Your task to perform on an android device: Go to CNN.com Image 0: 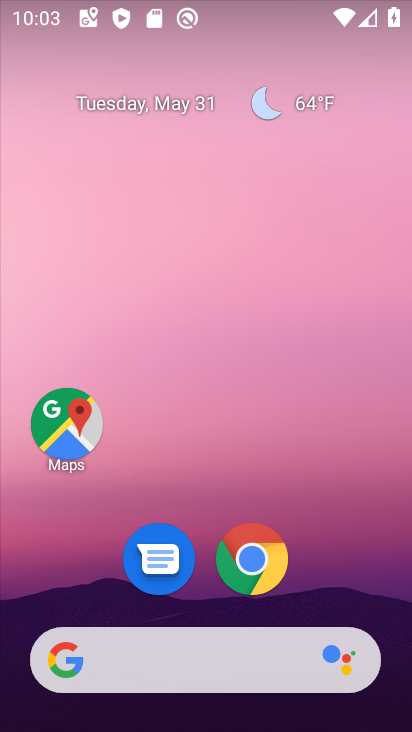
Step 0: drag from (94, 595) to (264, 127)
Your task to perform on an android device: Go to CNN.com Image 1: 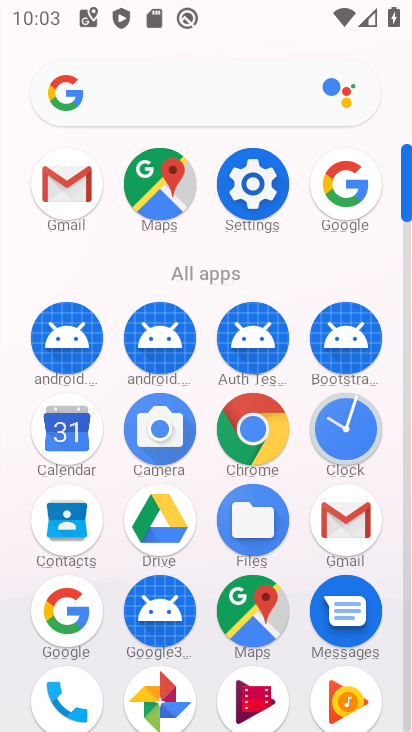
Step 1: click (276, 427)
Your task to perform on an android device: Go to CNN.com Image 2: 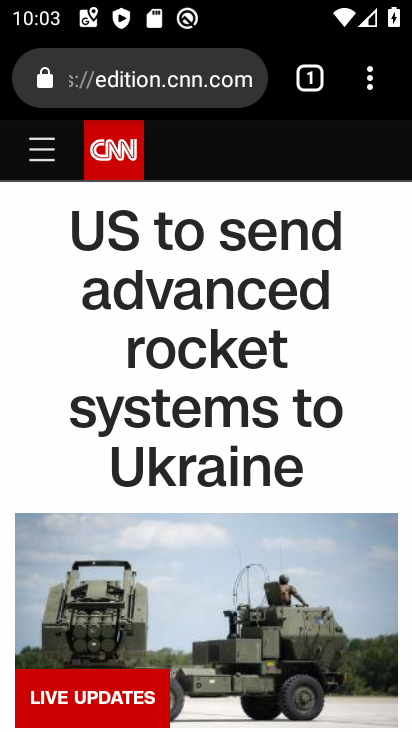
Step 2: task complete